Your task to perform on an android device: Play the last video I watched on Youtube Image 0: 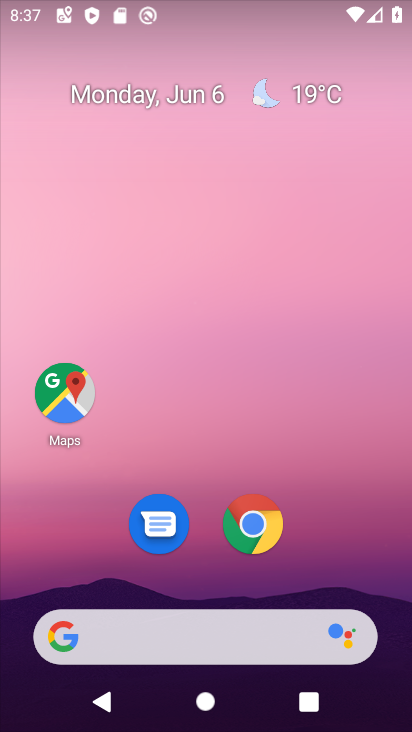
Step 0: drag from (319, 551) to (281, 46)
Your task to perform on an android device: Play the last video I watched on Youtube Image 1: 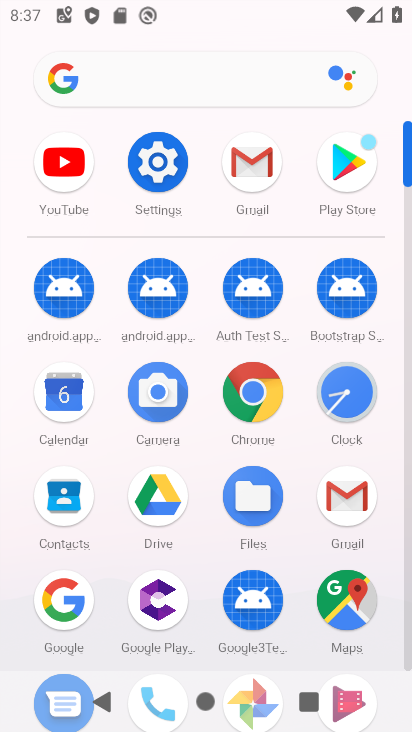
Step 1: drag from (291, 440) to (281, 24)
Your task to perform on an android device: Play the last video I watched on Youtube Image 2: 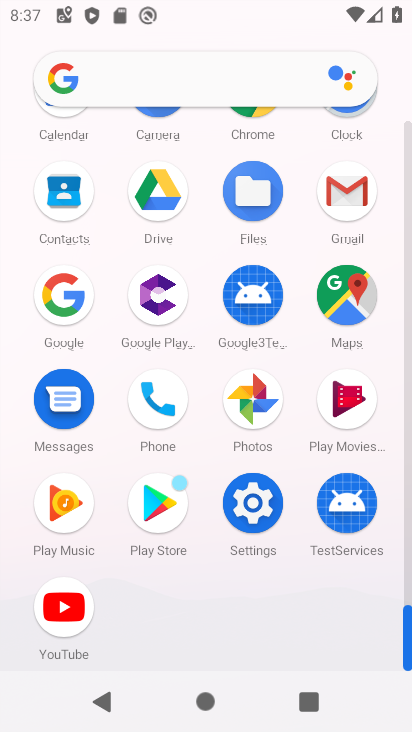
Step 2: click (72, 611)
Your task to perform on an android device: Play the last video I watched on Youtube Image 3: 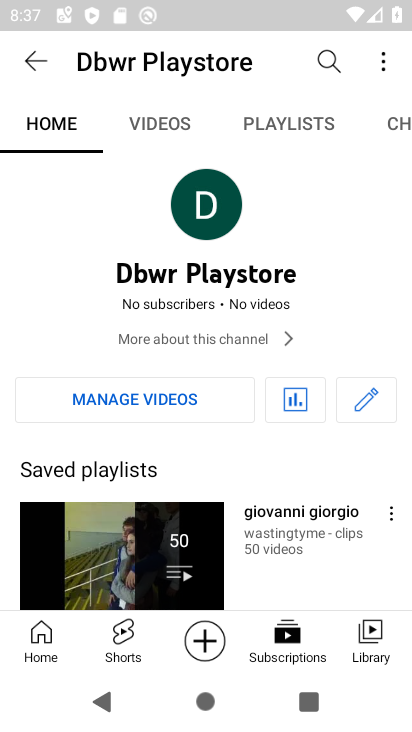
Step 3: click (367, 628)
Your task to perform on an android device: Play the last video I watched on Youtube Image 4: 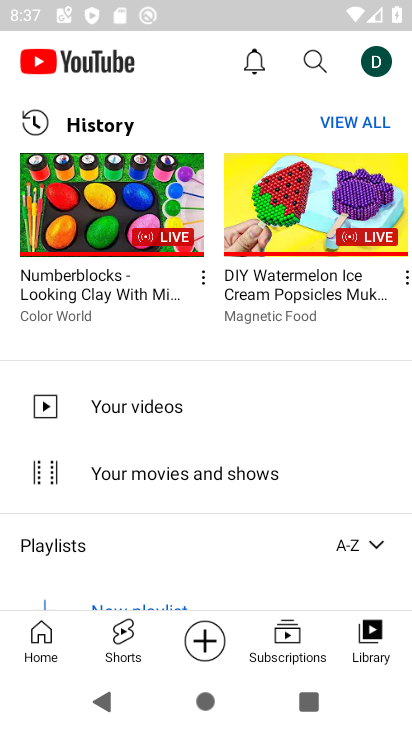
Step 4: click (86, 205)
Your task to perform on an android device: Play the last video I watched on Youtube Image 5: 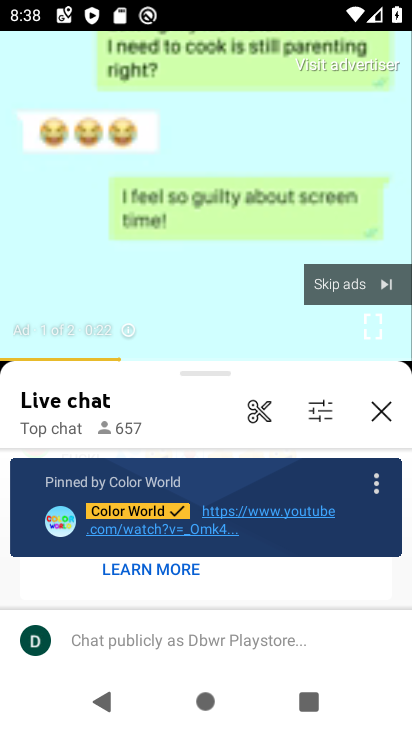
Step 5: click (337, 275)
Your task to perform on an android device: Play the last video I watched on Youtube Image 6: 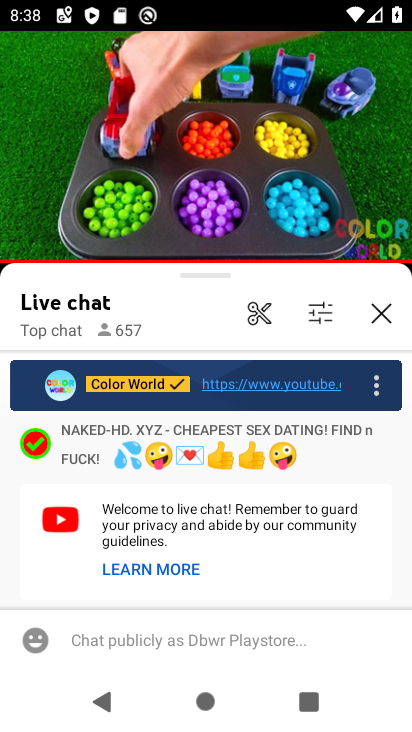
Step 6: task complete